Your task to perform on an android device: change notification settings in the gmail app Image 0: 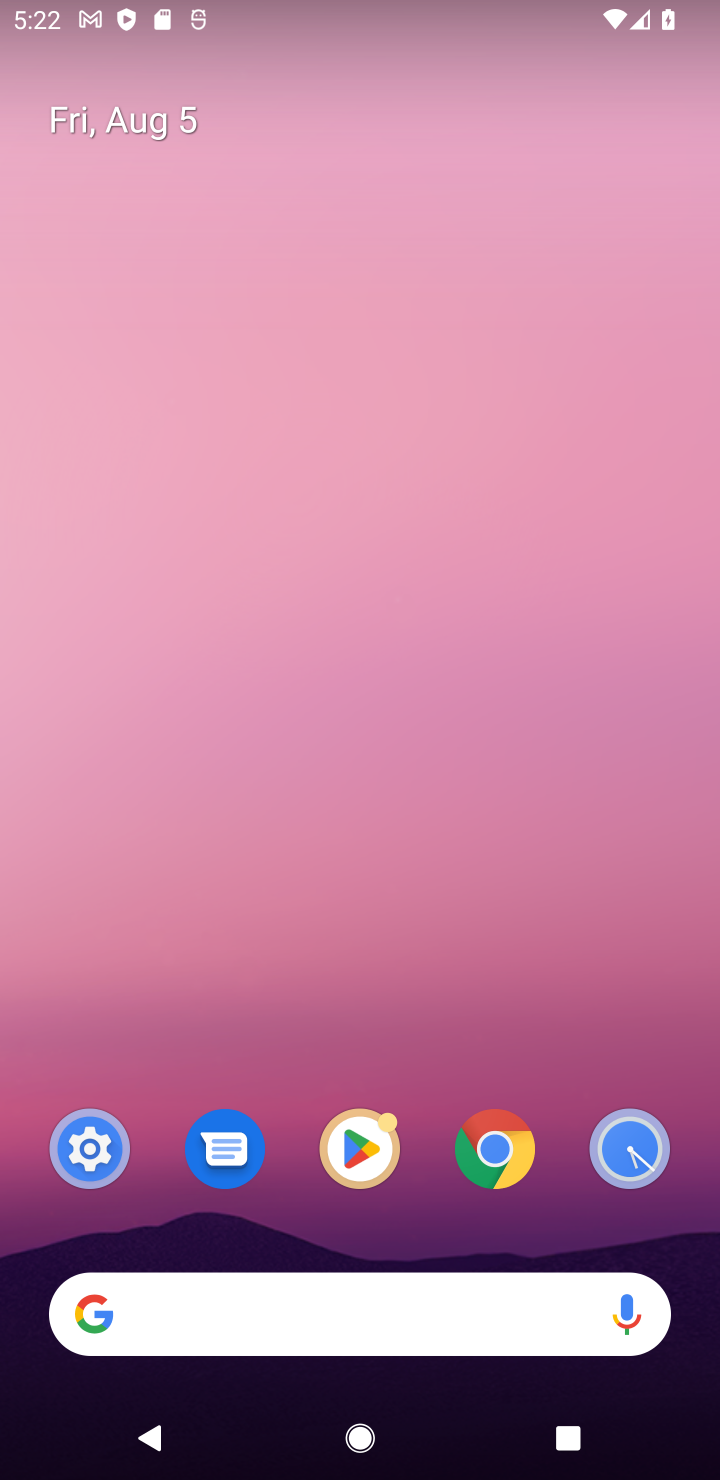
Step 0: click (496, 1155)
Your task to perform on an android device: change notification settings in the gmail app Image 1: 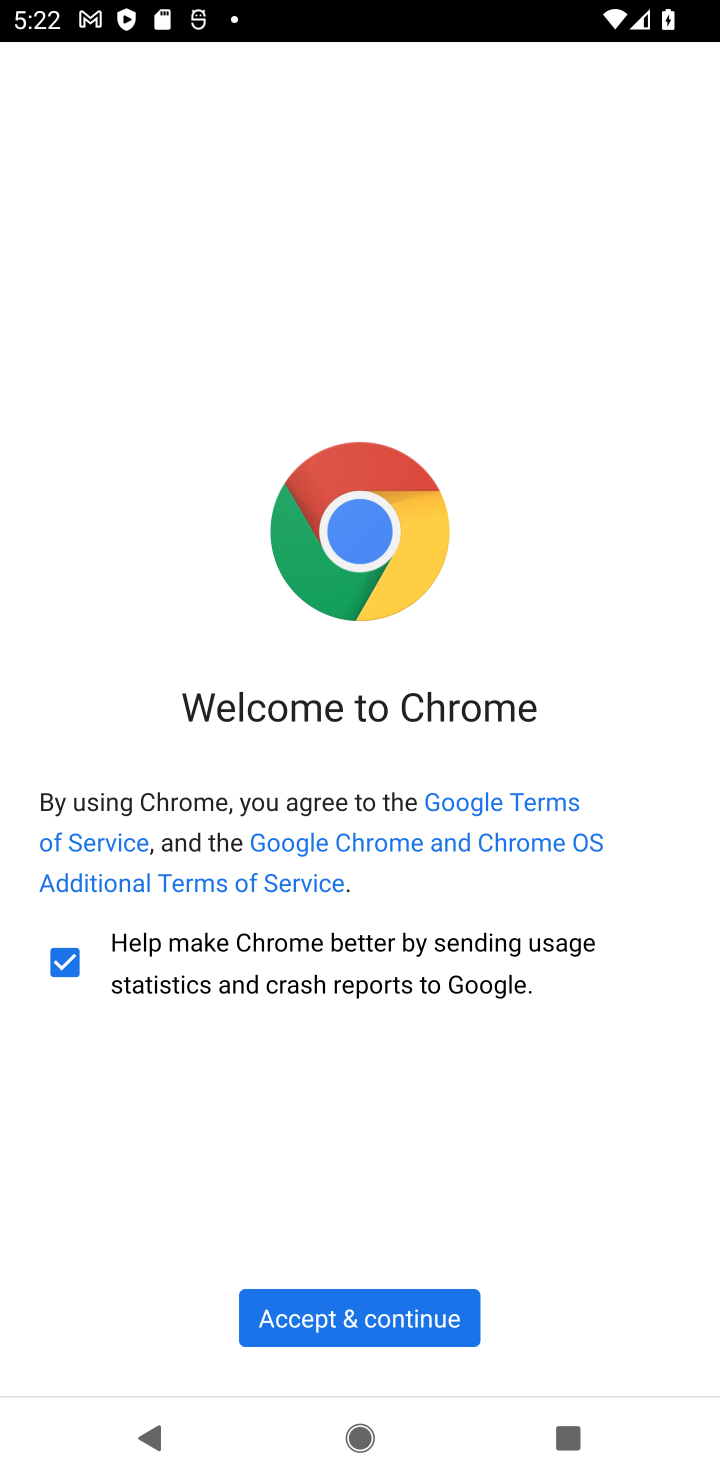
Step 1: click (349, 1318)
Your task to perform on an android device: change notification settings in the gmail app Image 2: 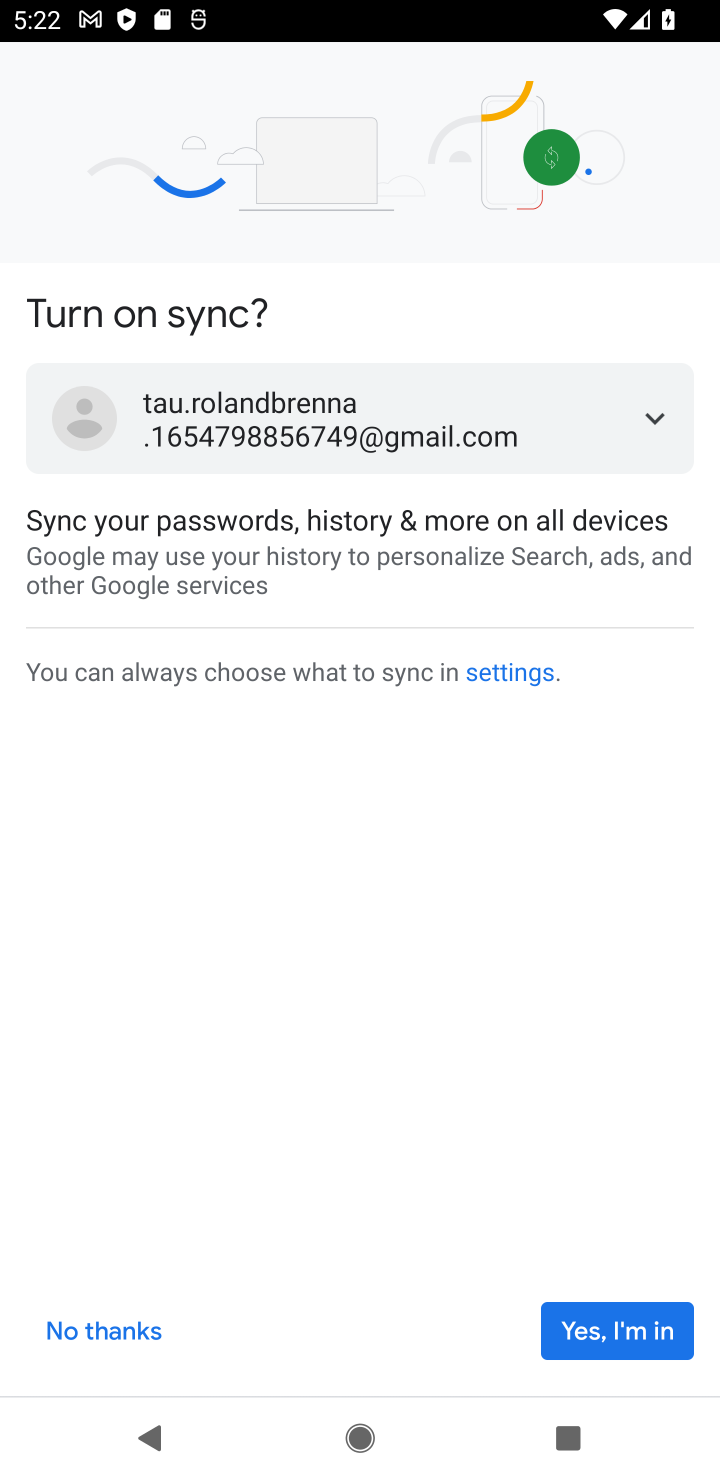
Step 2: click (601, 1336)
Your task to perform on an android device: change notification settings in the gmail app Image 3: 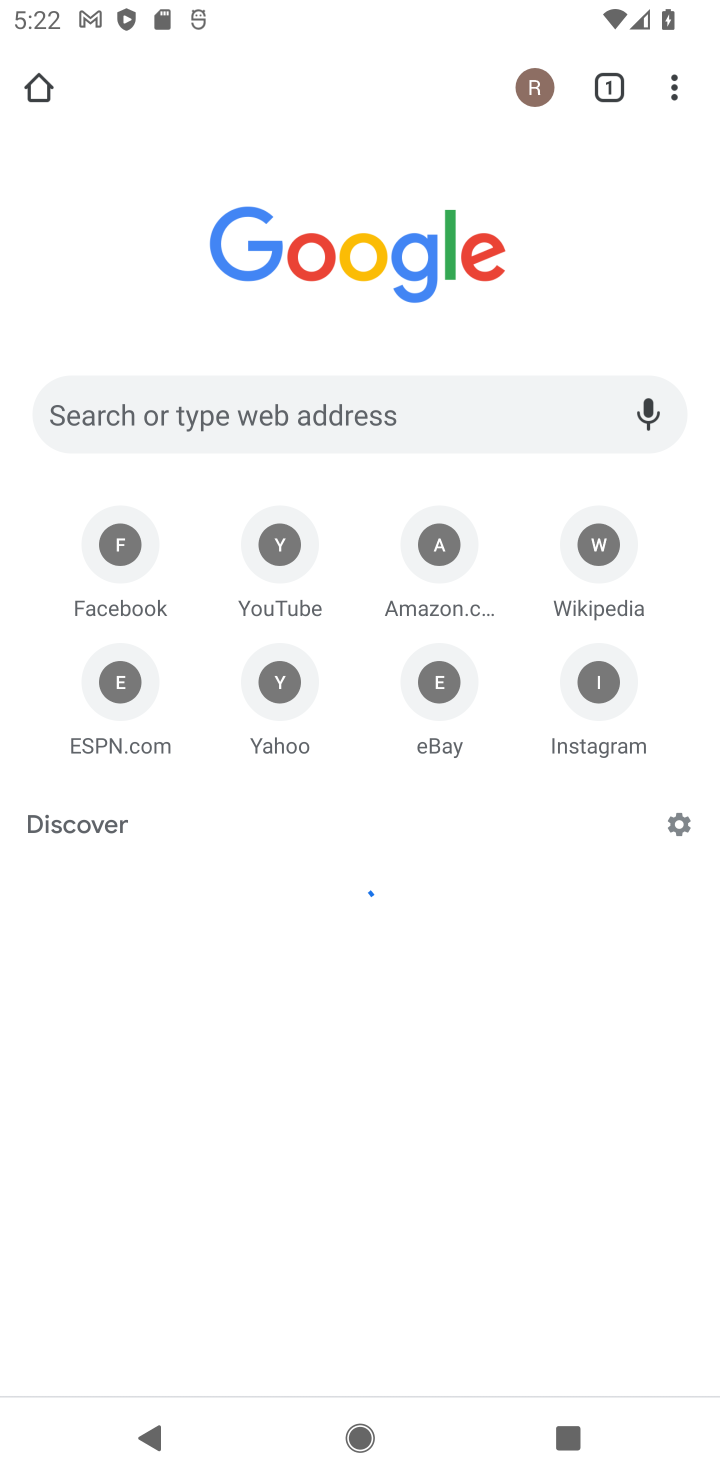
Step 3: press home button
Your task to perform on an android device: change notification settings in the gmail app Image 4: 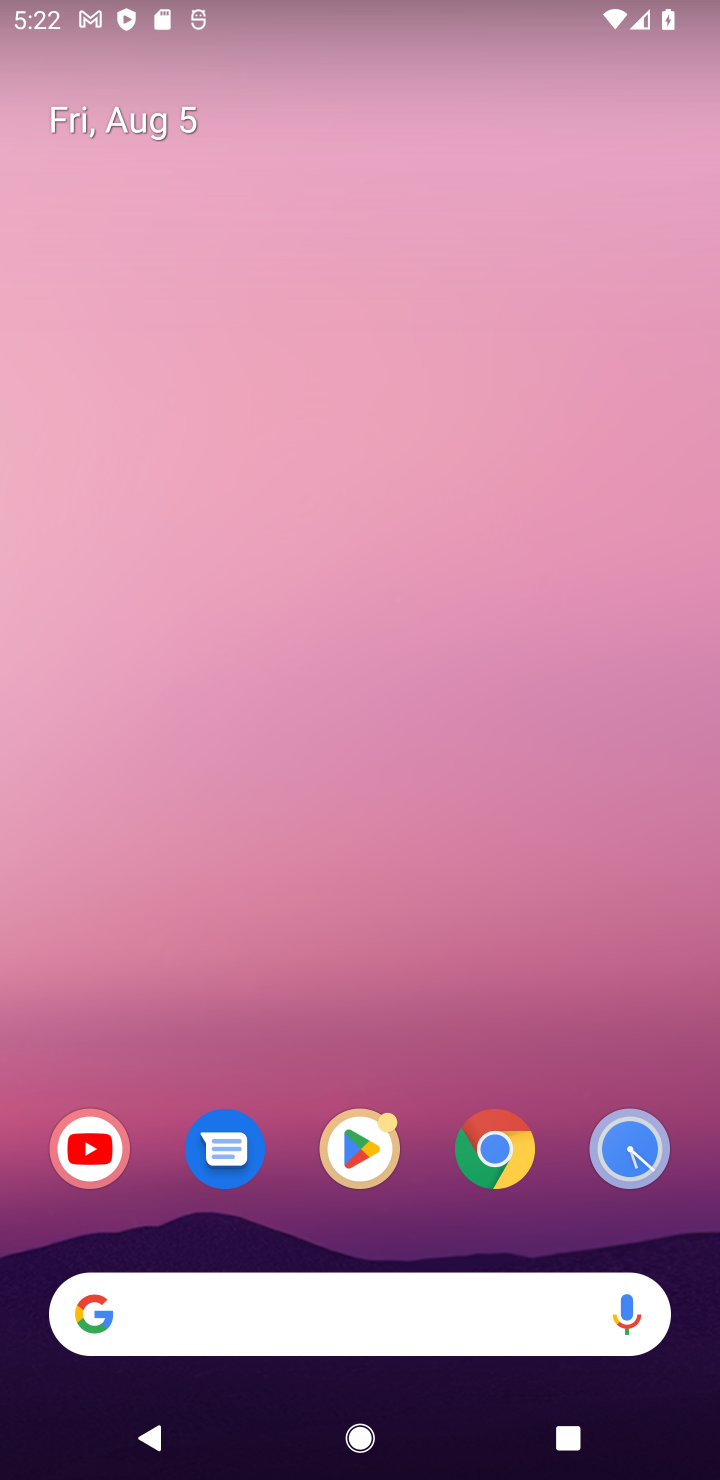
Step 4: drag from (234, 1076) to (310, 78)
Your task to perform on an android device: change notification settings in the gmail app Image 5: 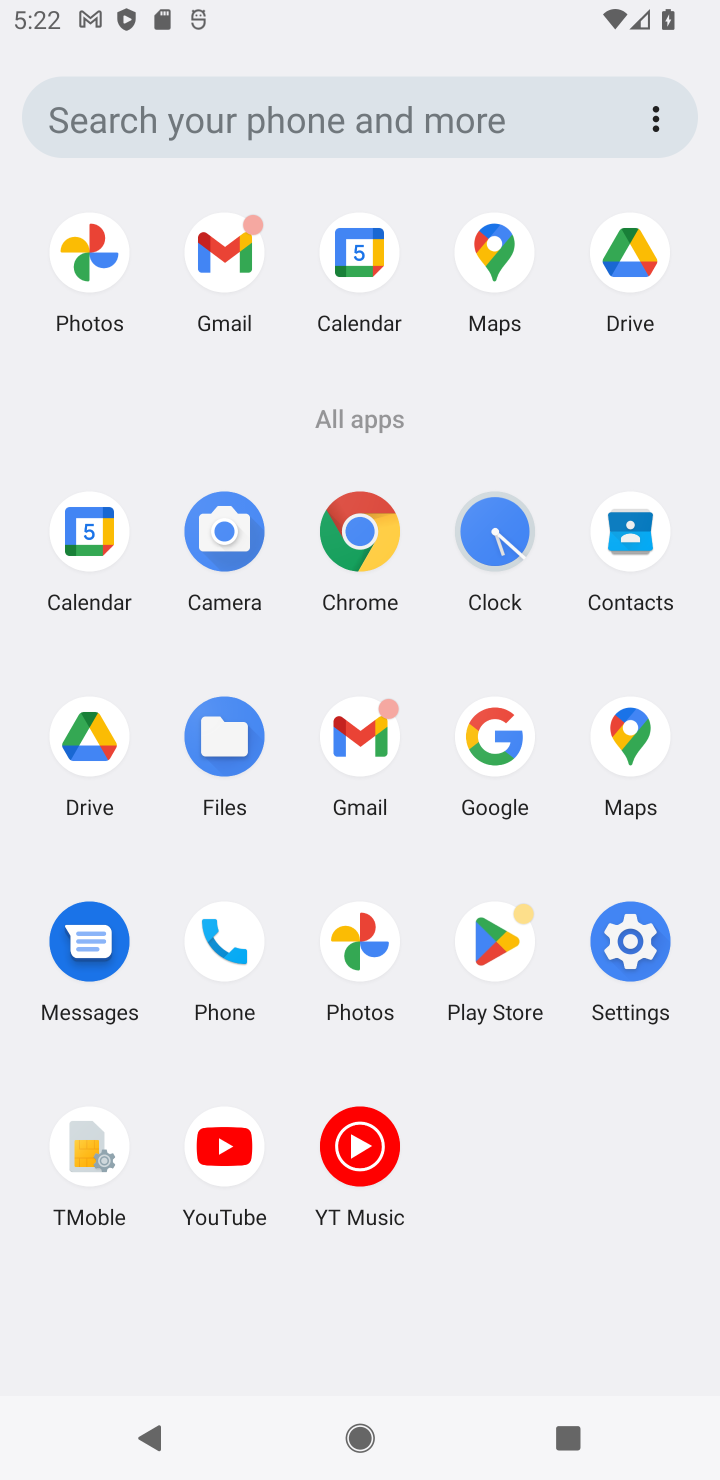
Step 5: click (354, 722)
Your task to perform on an android device: change notification settings in the gmail app Image 6: 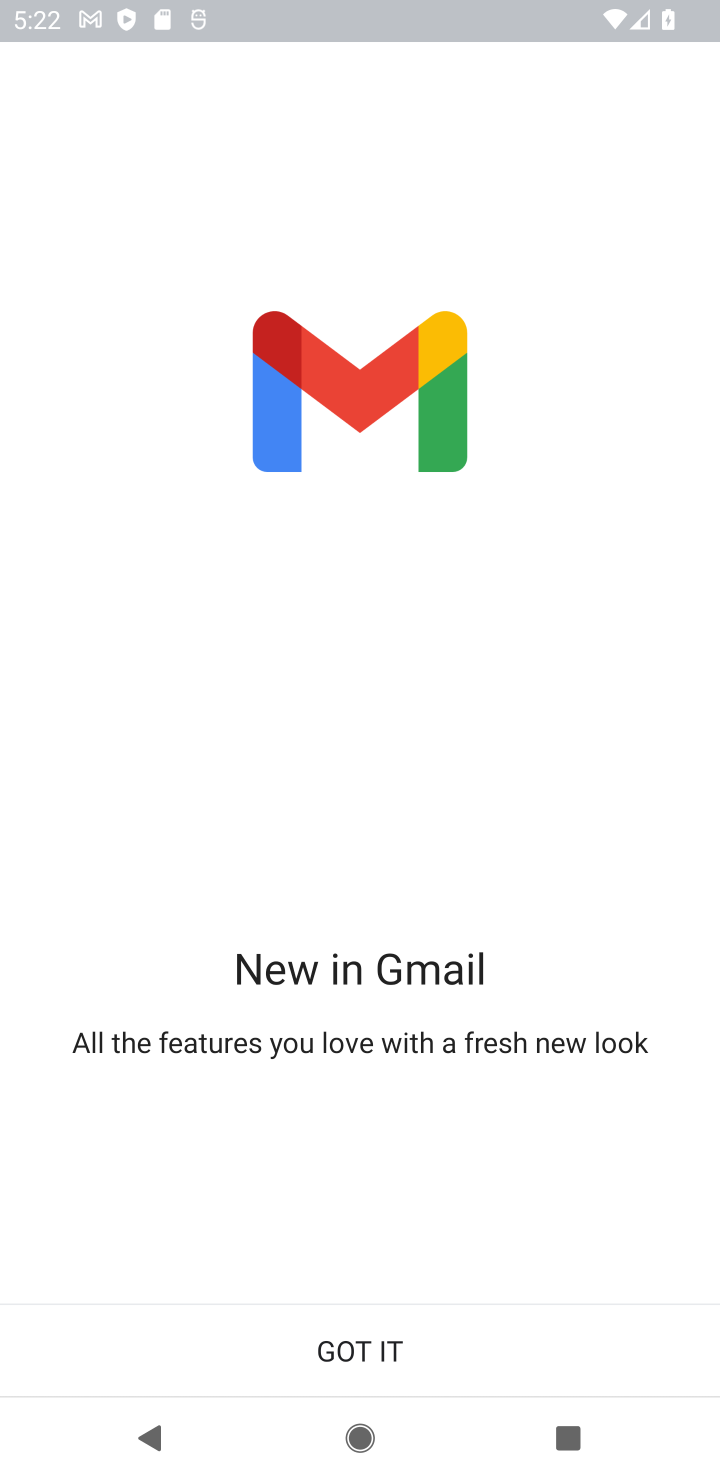
Step 6: click (356, 1336)
Your task to perform on an android device: change notification settings in the gmail app Image 7: 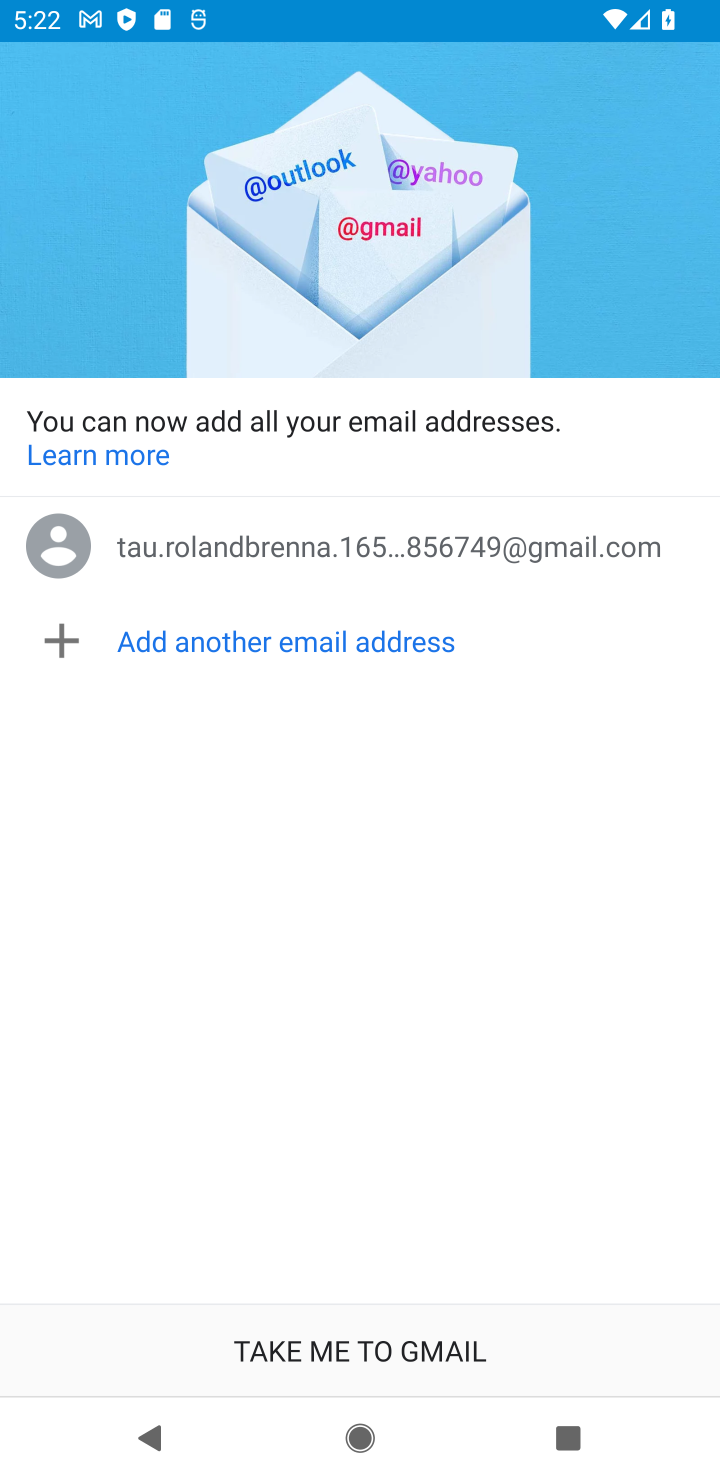
Step 7: click (401, 1312)
Your task to perform on an android device: change notification settings in the gmail app Image 8: 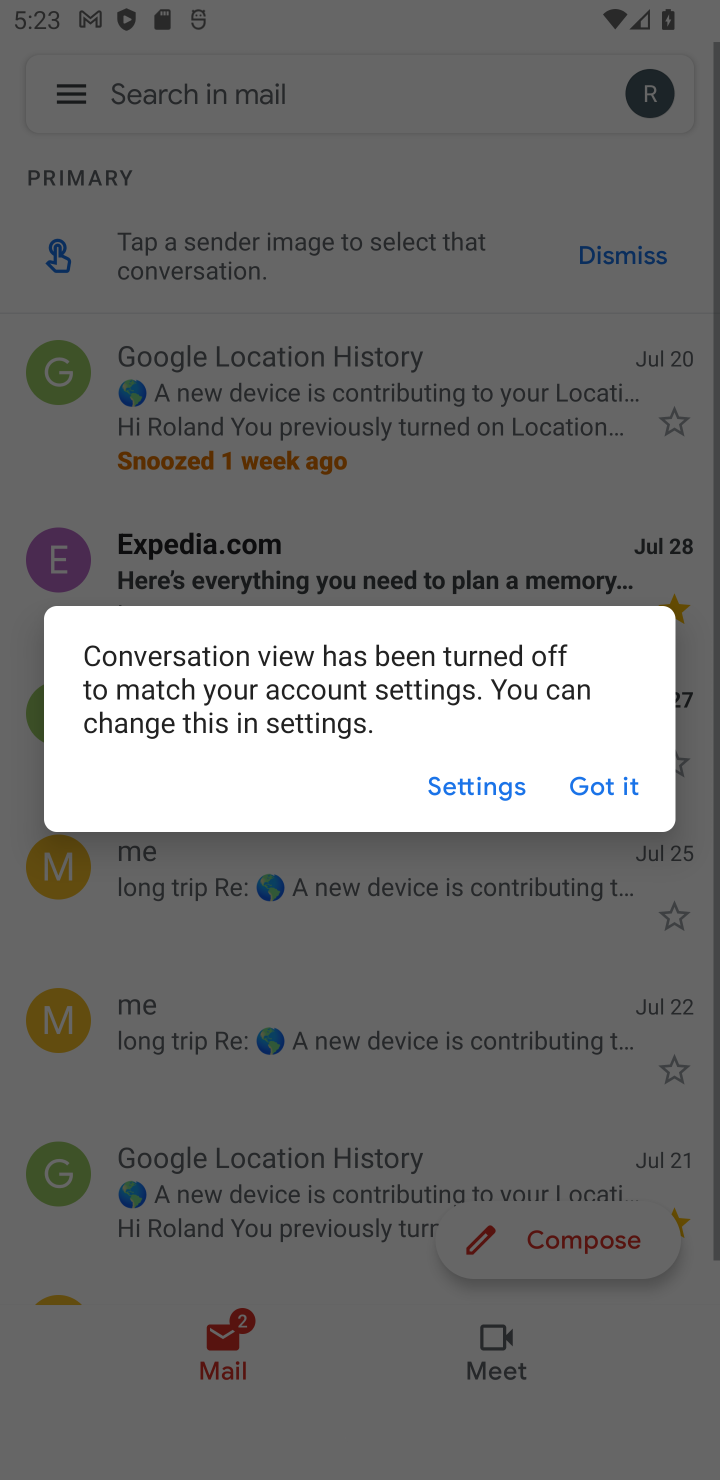
Step 8: click (597, 798)
Your task to perform on an android device: change notification settings in the gmail app Image 9: 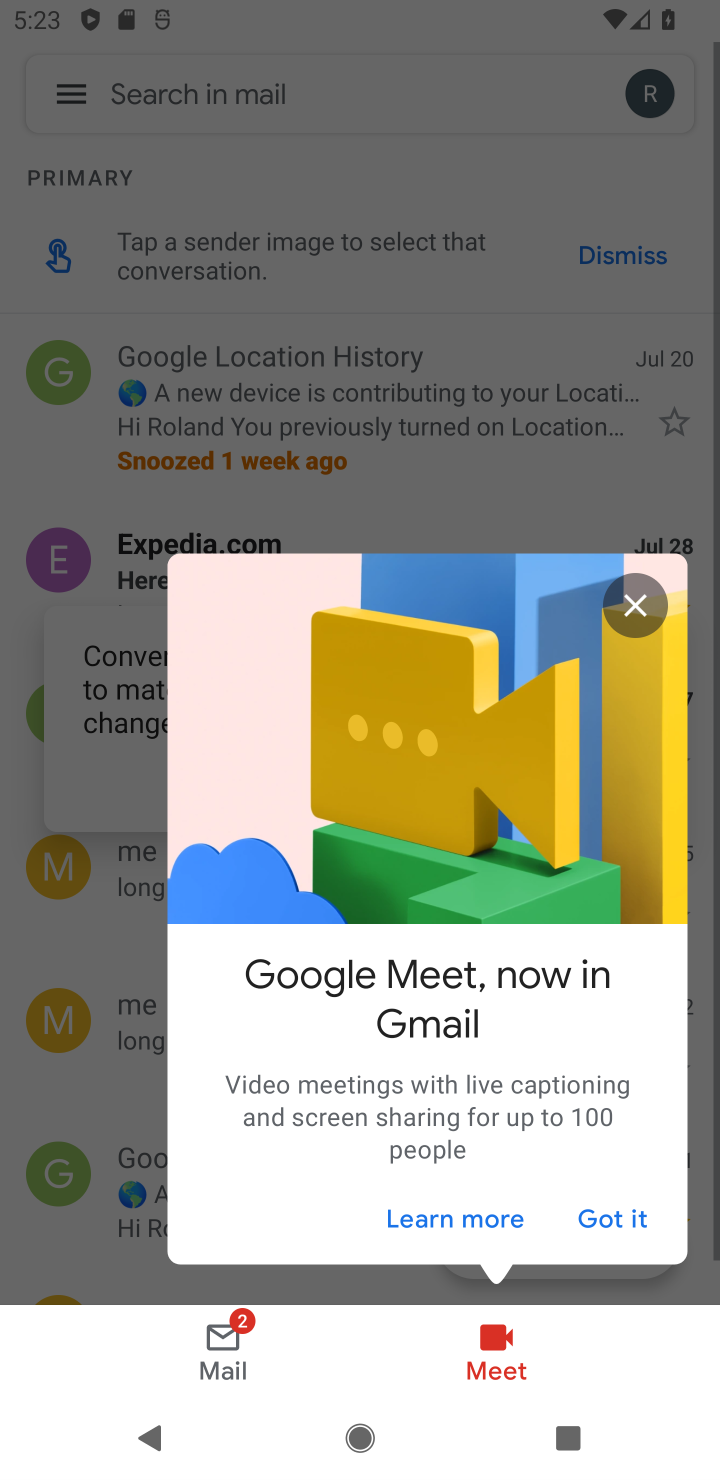
Step 9: click (647, 599)
Your task to perform on an android device: change notification settings in the gmail app Image 10: 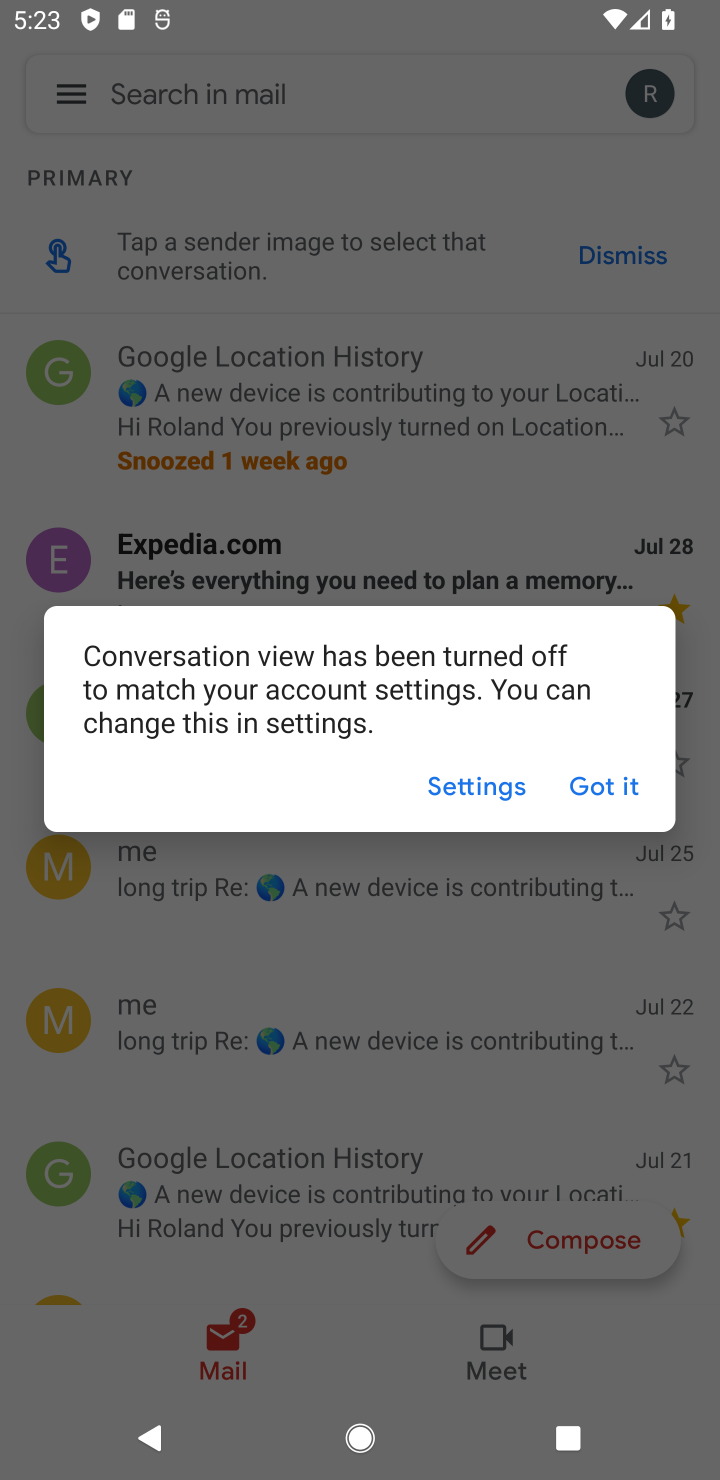
Step 10: click (619, 790)
Your task to perform on an android device: change notification settings in the gmail app Image 11: 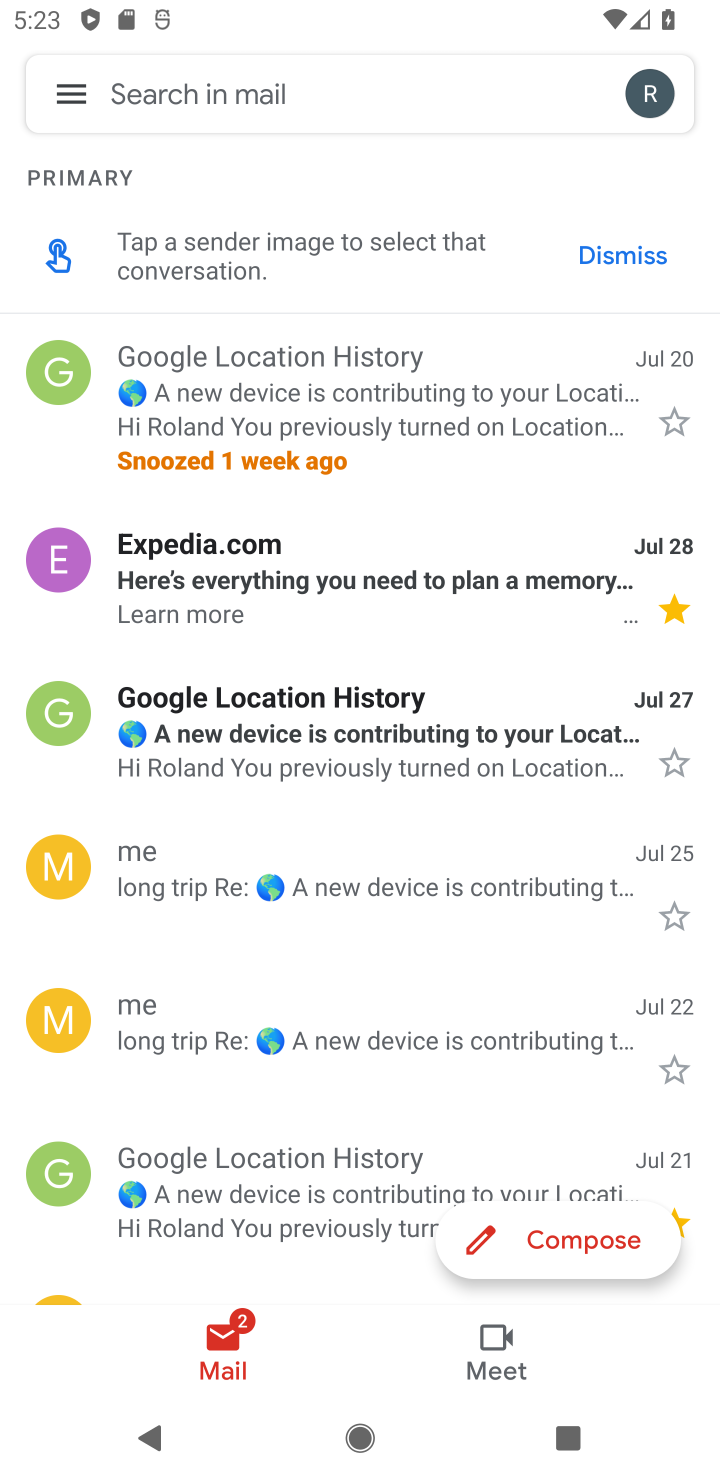
Step 11: click (60, 89)
Your task to perform on an android device: change notification settings in the gmail app Image 12: 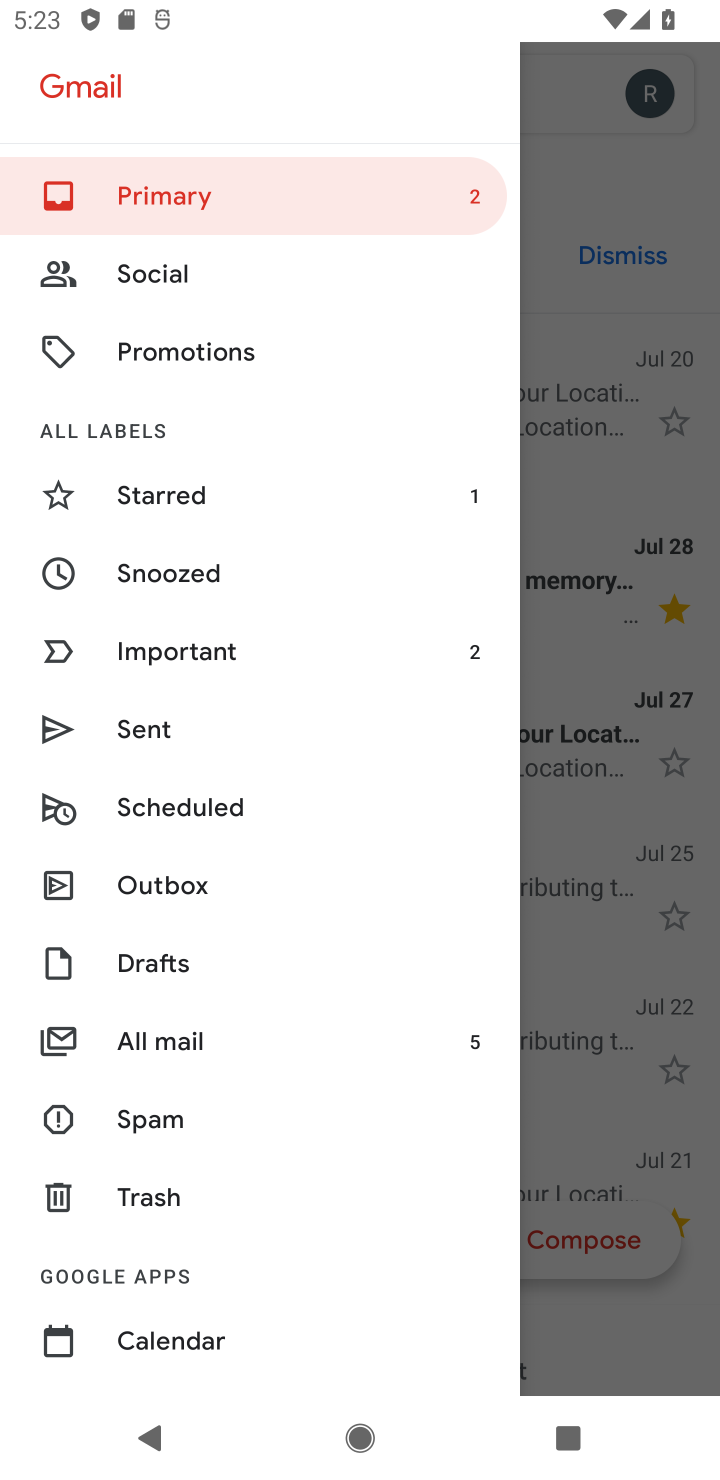
Step 12: drag from (357, 1175) to (401, 332)
Your task to perform on an android device: change notification settings in the gmail app Image 13: 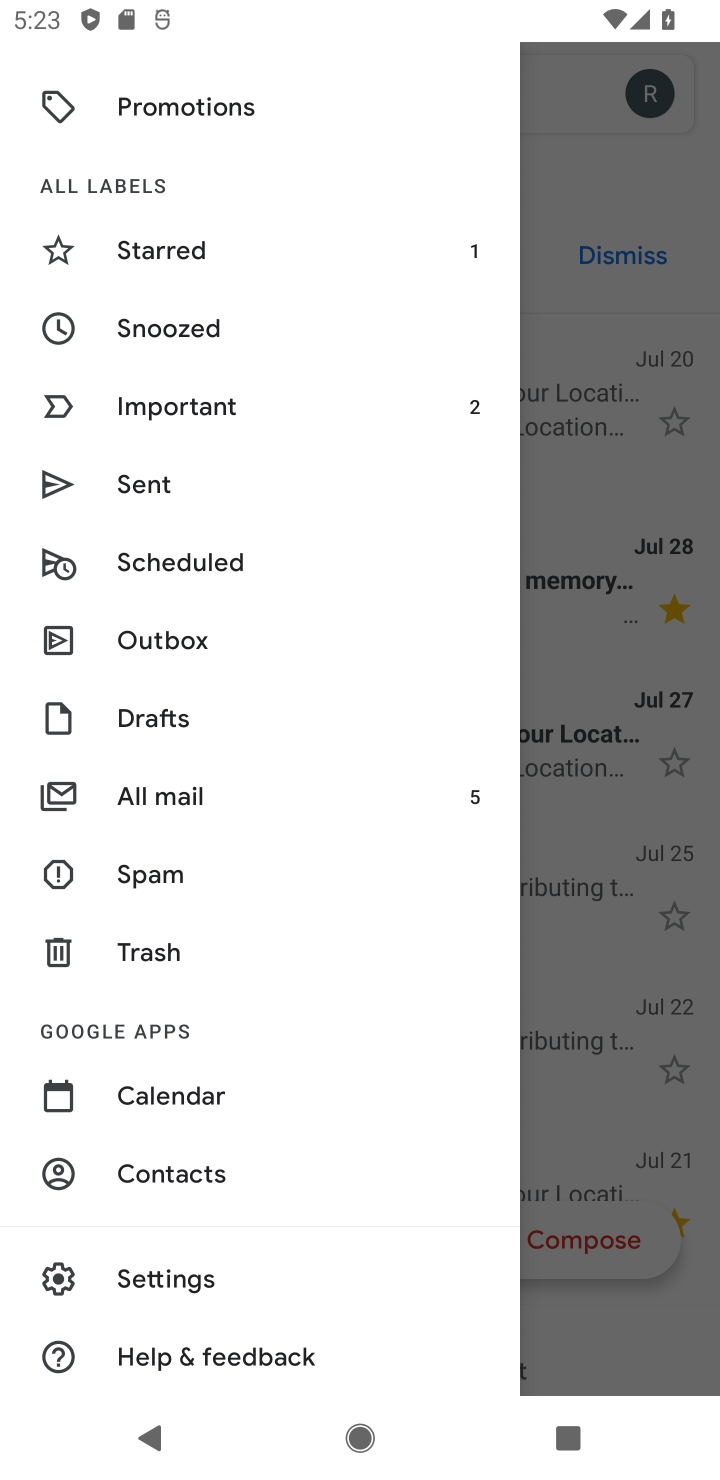
Step 13: click (145, 1279)
Your task to perform on an android device: change notification settings in the gmail app Image 14: 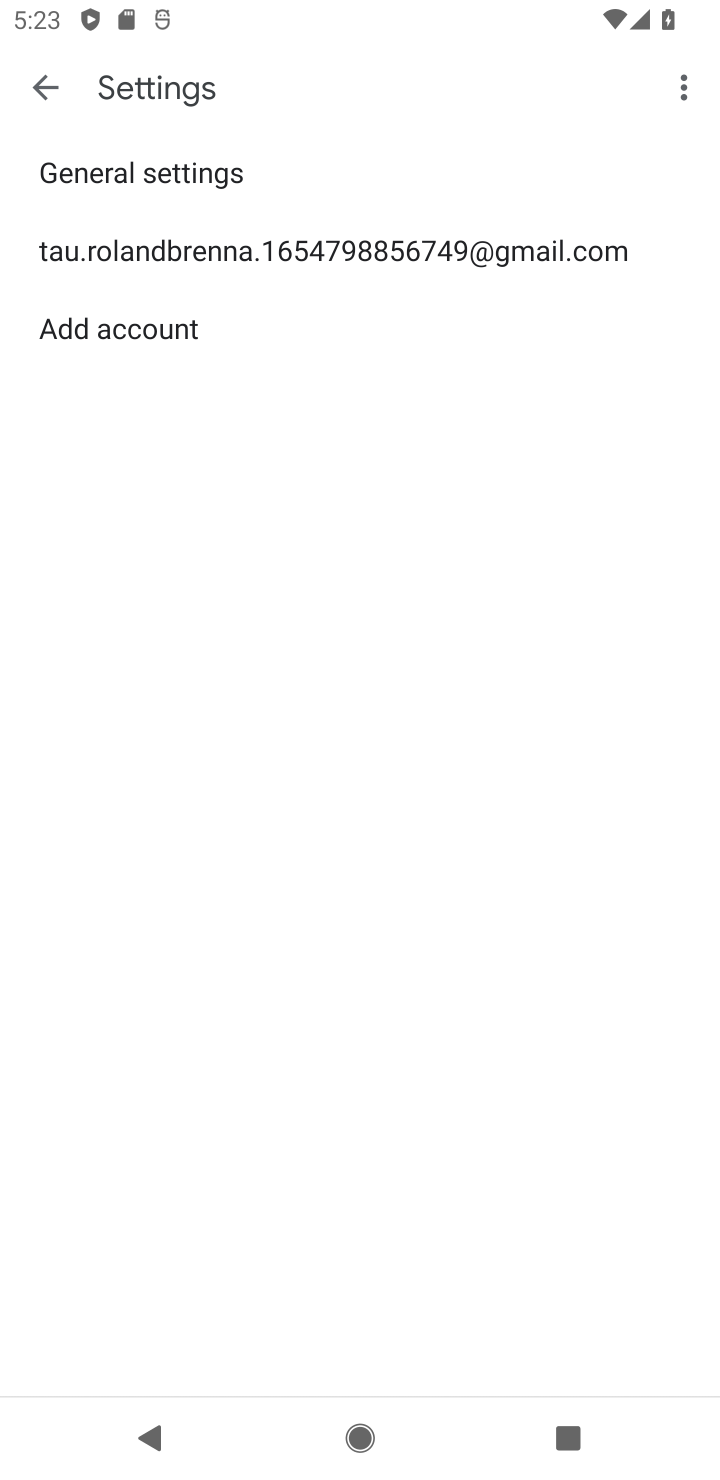
Step 14: click (40, 80)
Your task to perform on an android device: change notification settings in the gmail app Image 15: 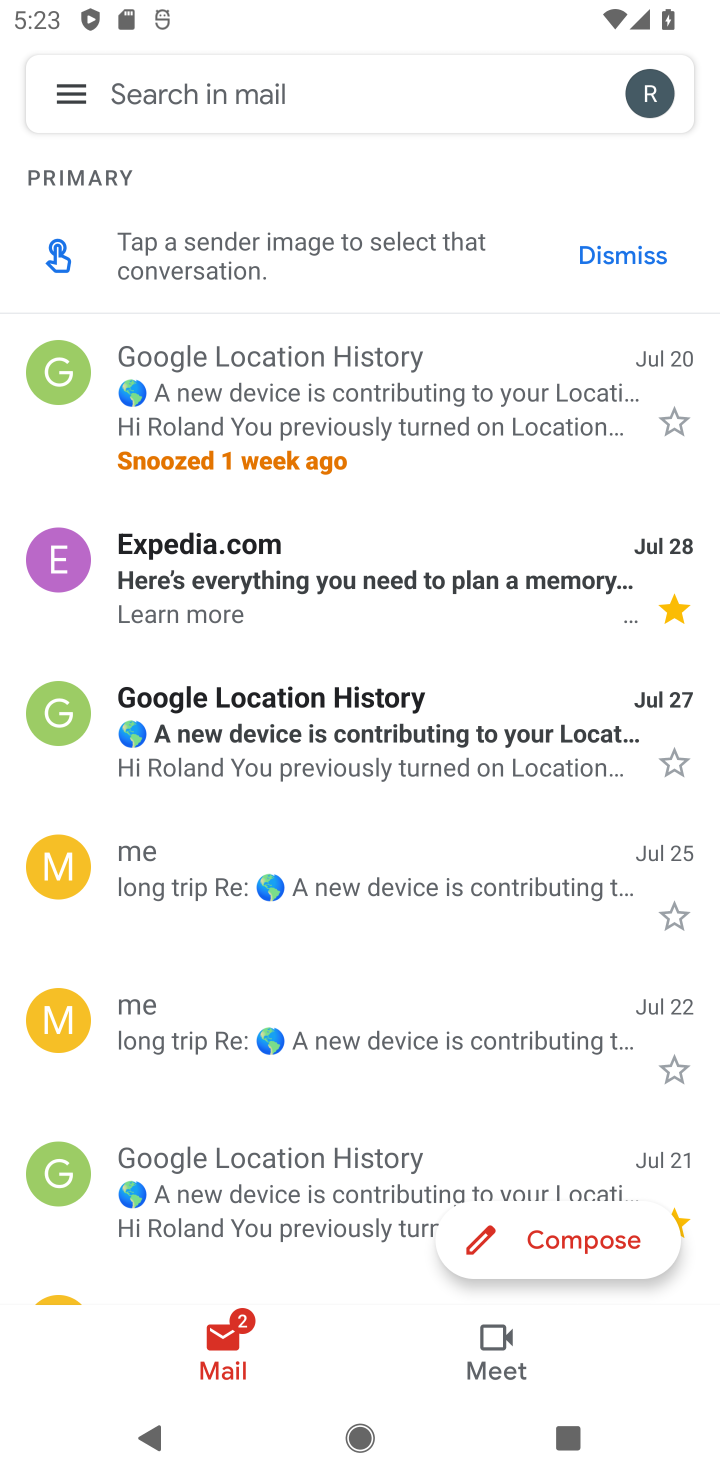
Step 15: click (79, 91)
Your task to perform on an android device: change notification settings in the gmail app Image 16: 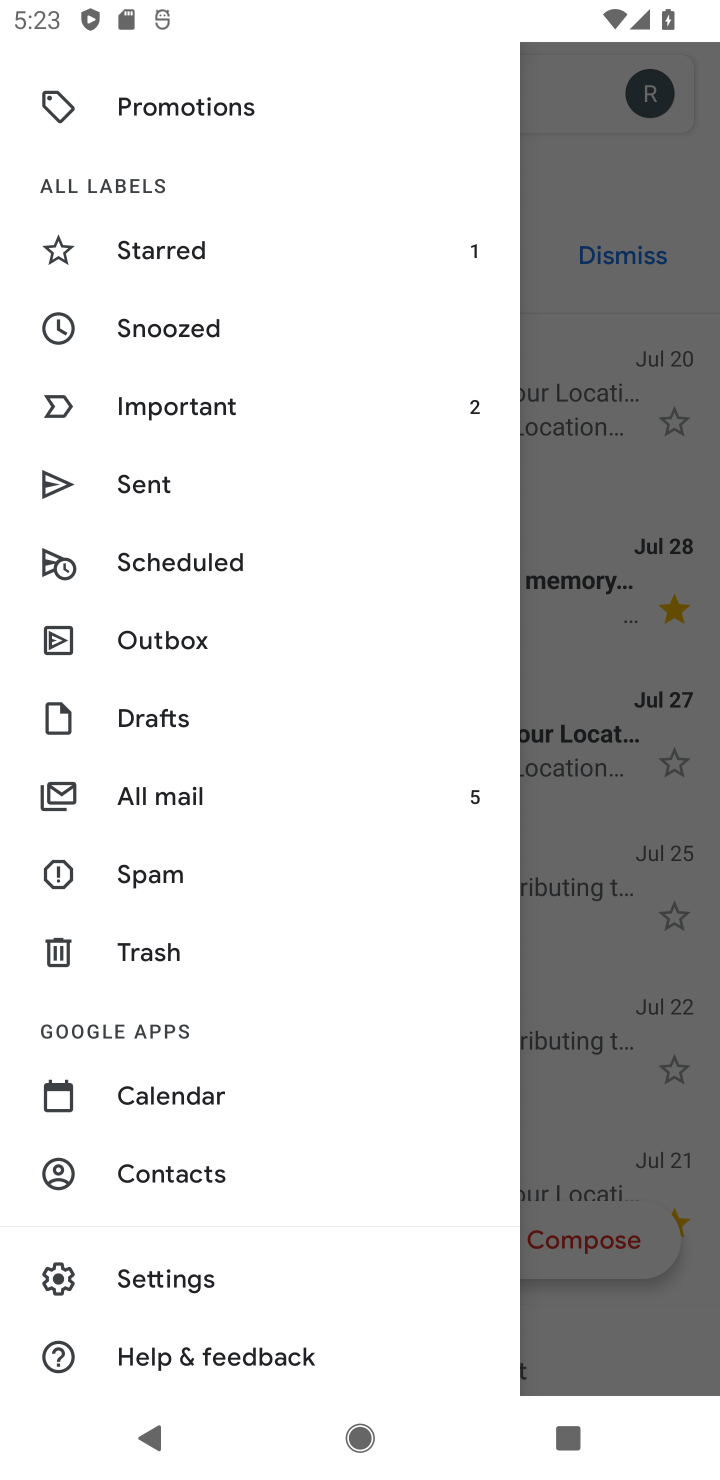
Step 16: click (153, 1281)
Your task to perform on an android device: change notification settings in the gmail app Image 17: 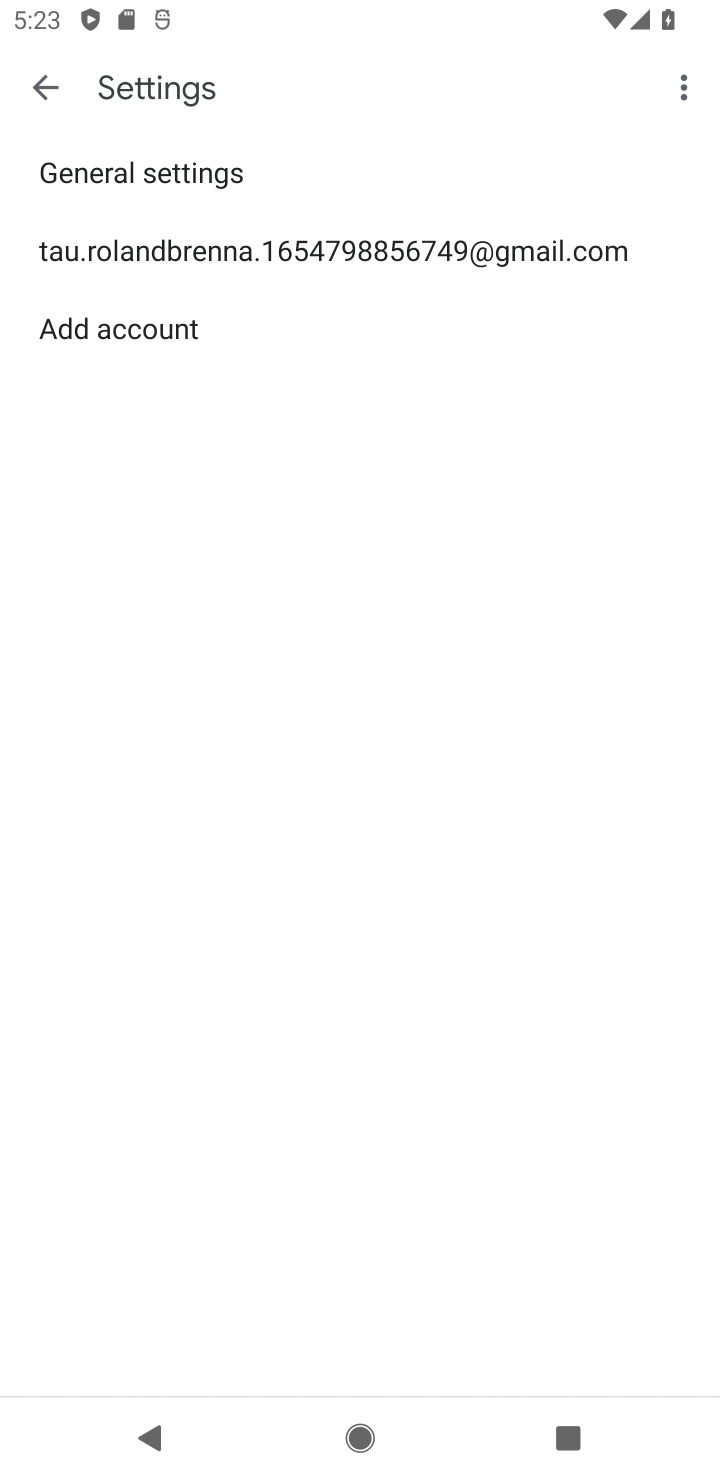
Step 17: click (172, 187)
Your task to perform on an android device: change notification settings in the gmail app Image 18: 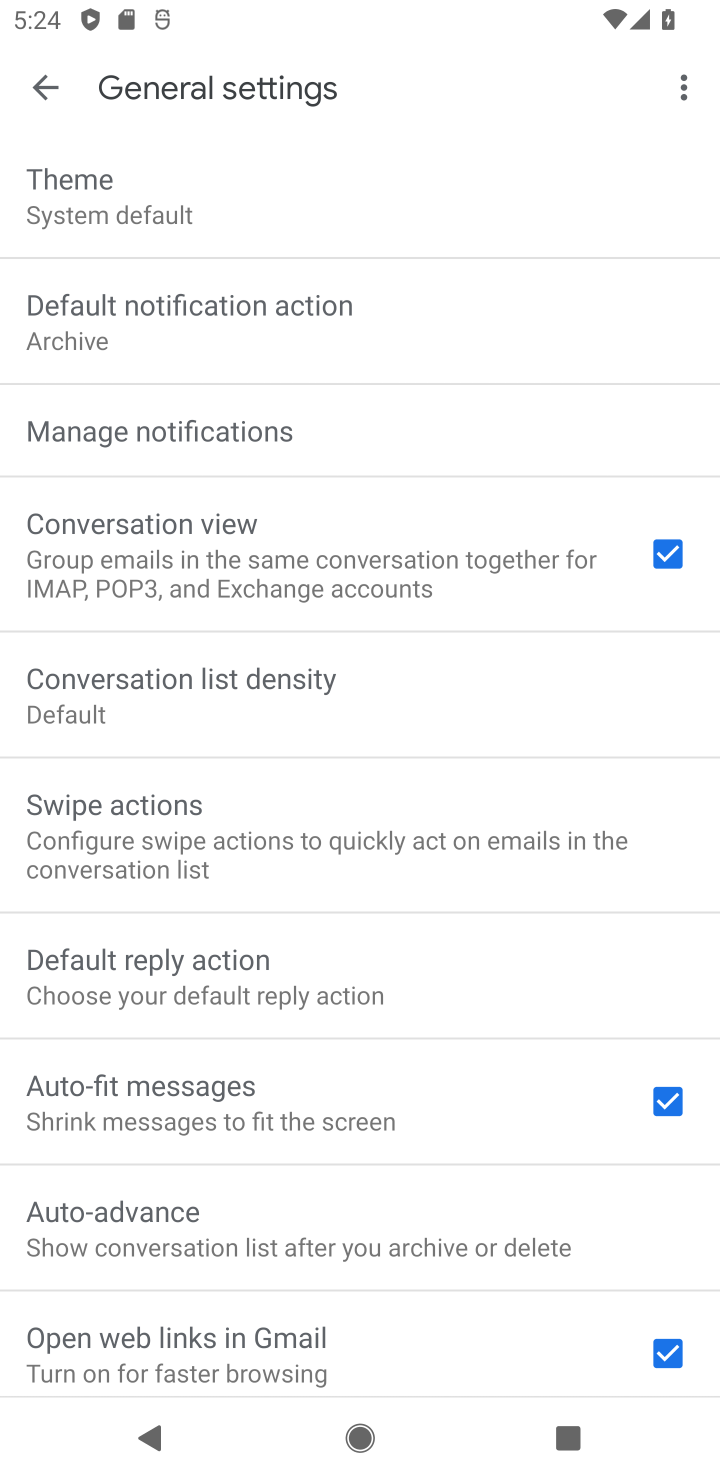
Step 18: click (375, 431)
Your task to perform on an android device: change notification settings in the gmail app Image 19: 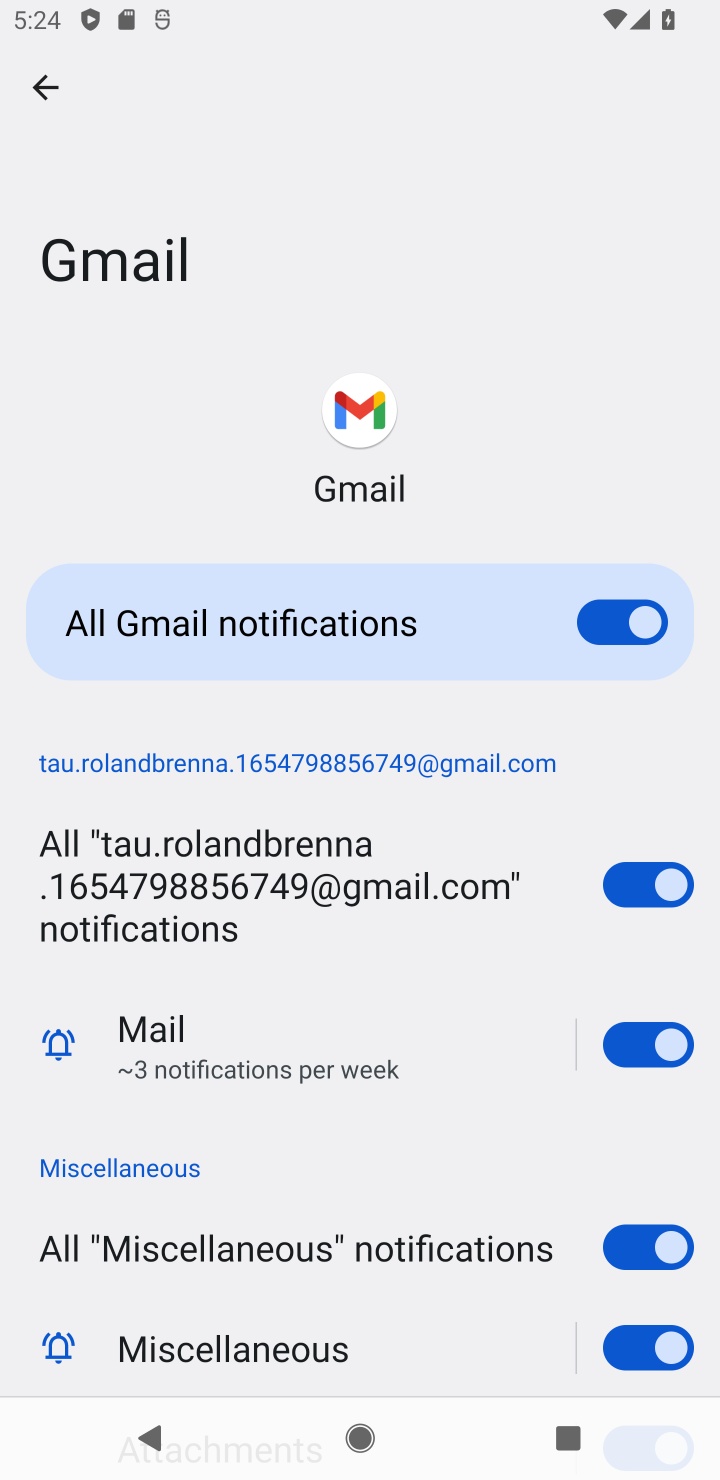
Step 19: click (635, 621)
Your task to perform on an android device: change notification settings in the gmail app Image 20: 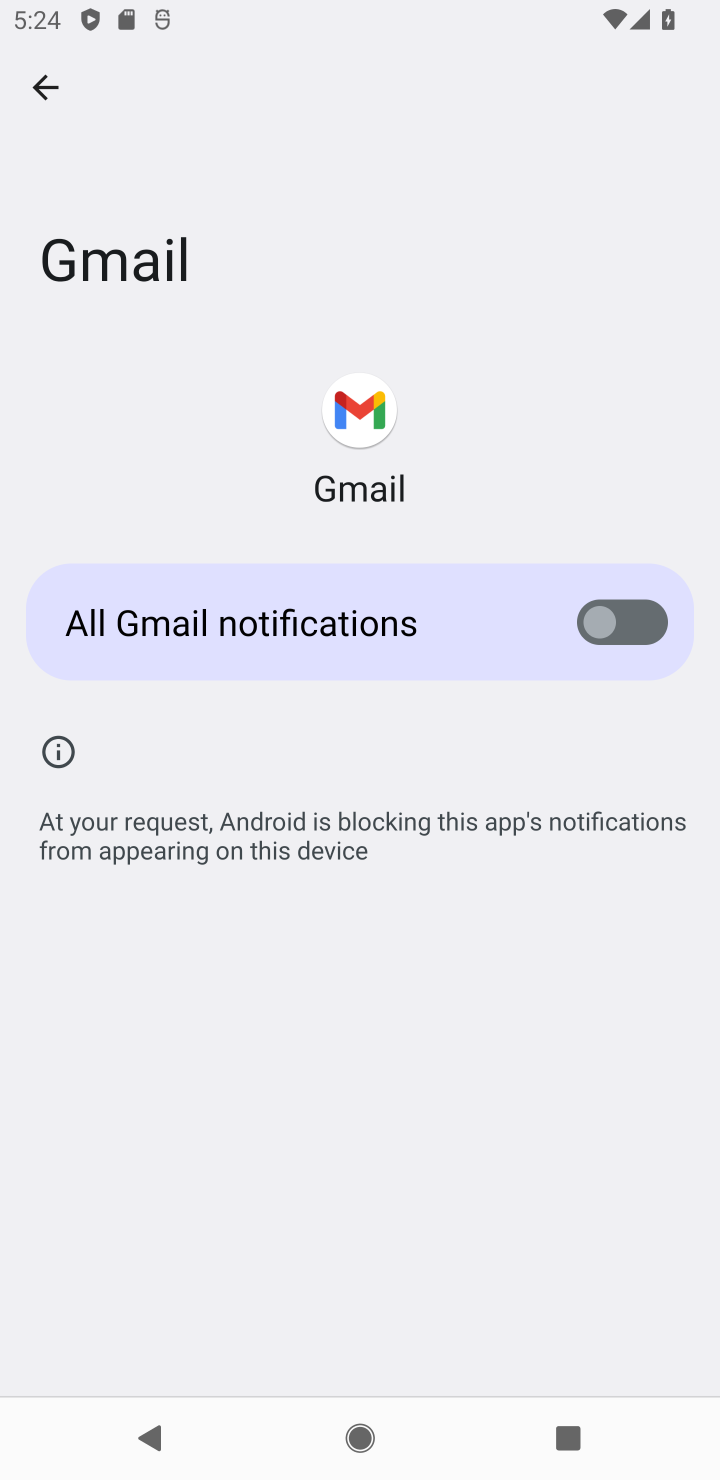
Step 20: task complete